Your task to perform on an android device: What's the weather? Image 0: 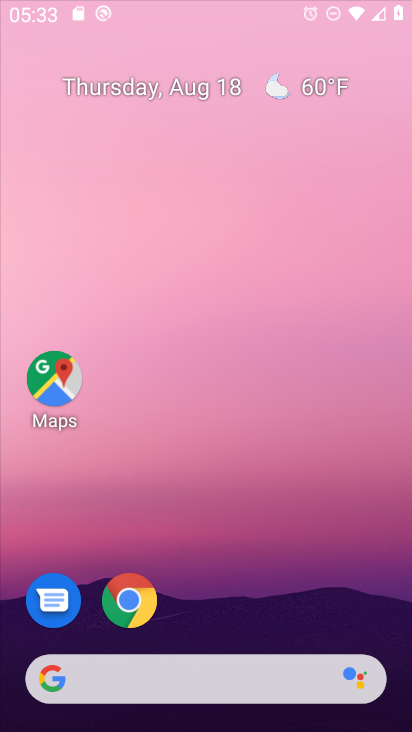
Step 0: press home button
Your task to perform on an android device: What's the weather? Image 1: 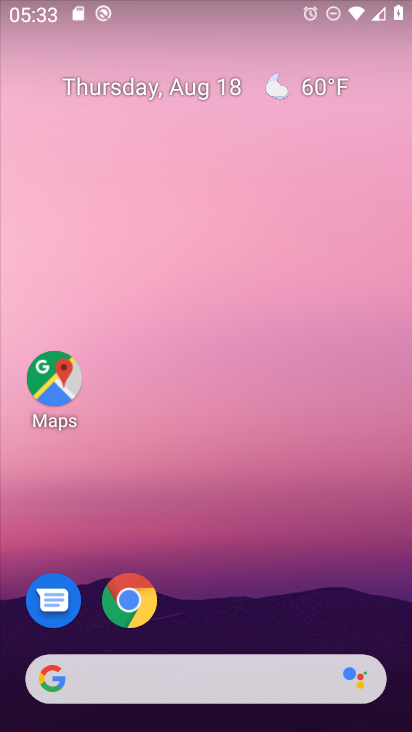
Step 1: click (42, 687)
Your task to perform on an android device: What's the weather? Image 2: 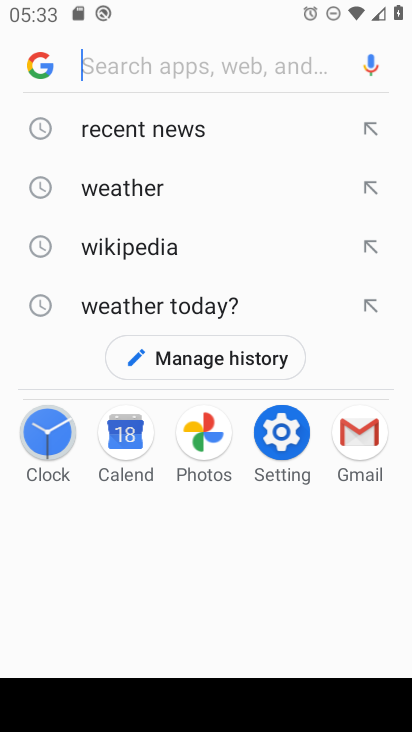
Step 2: click (126, 187)
Your task to perform on an android device: What's the weather? Image 3: 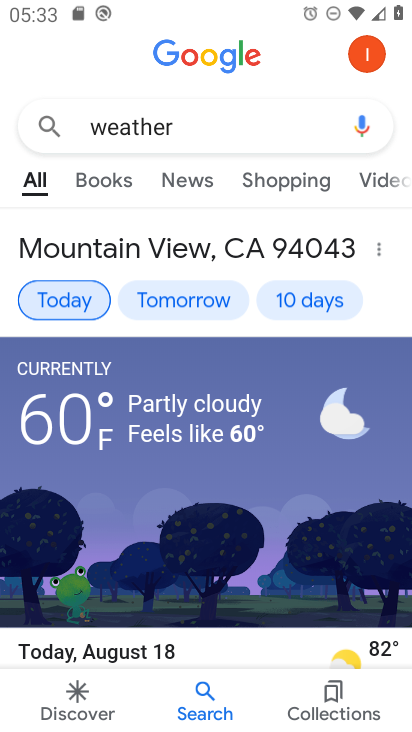
Step 3: task complete